Your task to perform on an android device: turn on data saver in the chrome app Image 0: 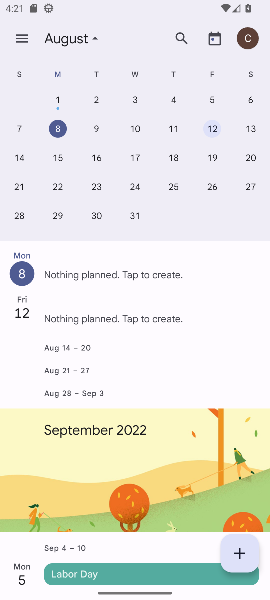
Step 0: press back button
Your task to perform on an android device: turn on data saver in the chrome app Image 1: 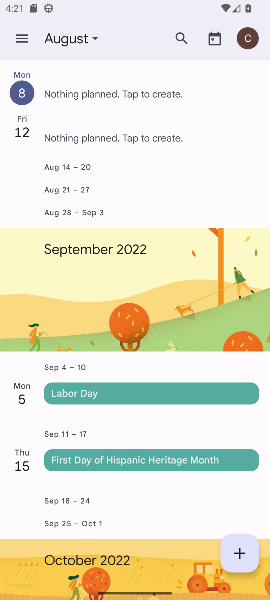
Step 1: press home button
Your task to perform on an android device: turn on data saver in the chrome app Image 2: 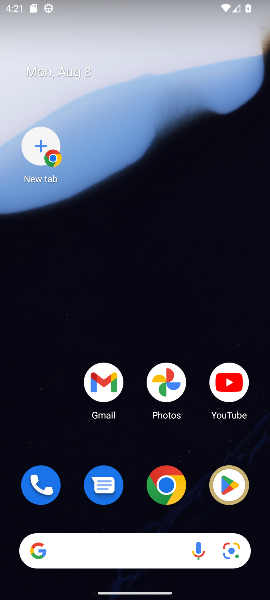
Step 2: click (101, 205)
Your task to perform on an android device: turn on data saver in the chrome app Image 3: 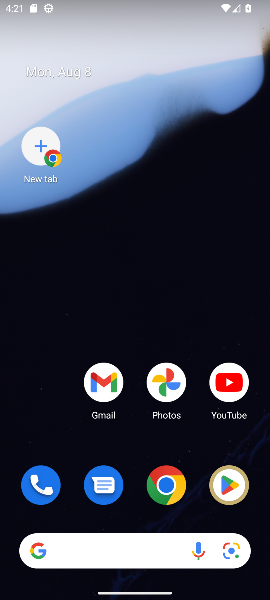
Step 3: drag from (179, 537) to (123, 150)
Your task to perform on an android device: turn on data saver in the chrome app Image 4: 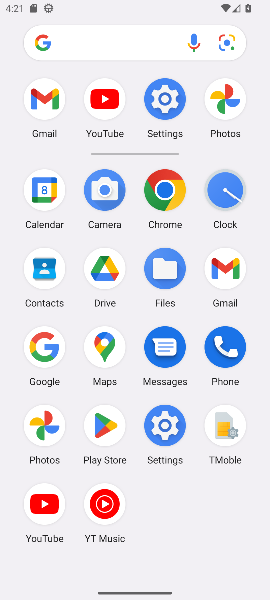
Step 4: click (161, 189)
Your task to perform on an android device: turn on data saver in the chrome app Image 5: 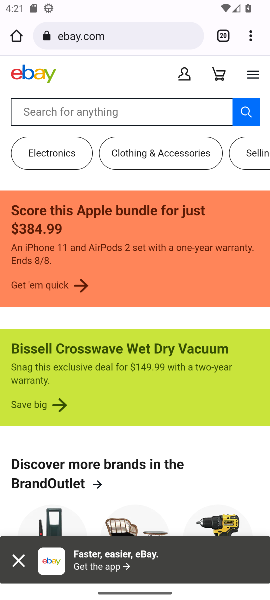
Step 5: drag from (245, 37) to (136, 467)
Your task to perform on an android device: turn on data saver in the chrome app Image 6: 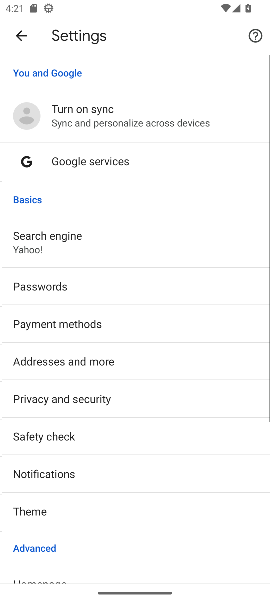
Step 6: press back button
Your task to perform on an android device: turn on data saver in the chrome app Image 7: 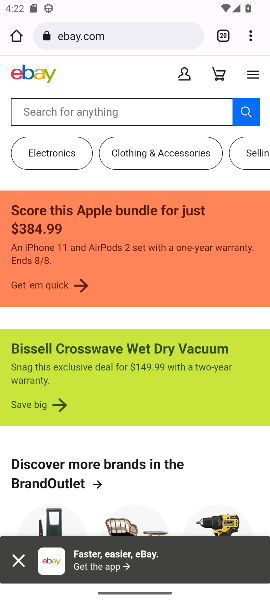
Step 7: press back button
Your task to perform on an android device: turn on data saver in the chrome app Image 8: 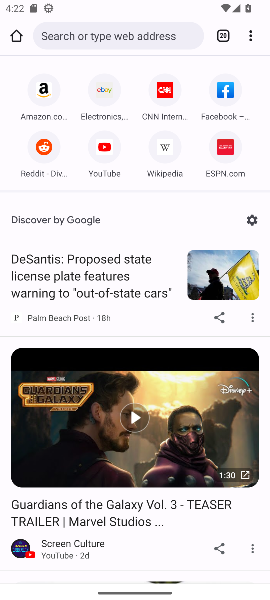
Step 8: press home button
Your task to perform on an android device: turn on data saver in the chrome app Image 9: 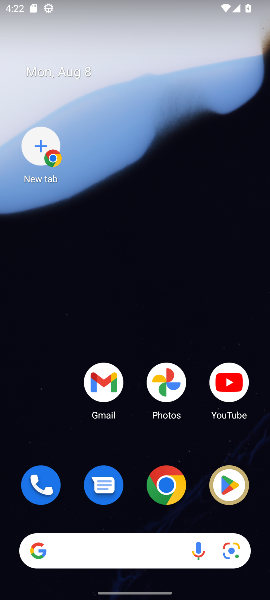
Step 9: drag from (163, 516) to (116, 10)
Your task to perform on an android device: turn on data saver in the chrome app Image 10: 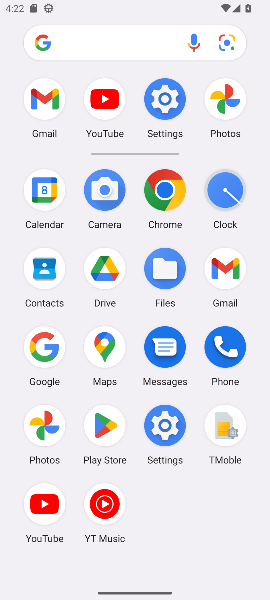
Step 10: click (166, 96)
Your task to perform on an android device: turn on data saver in the chrome app Image 11: 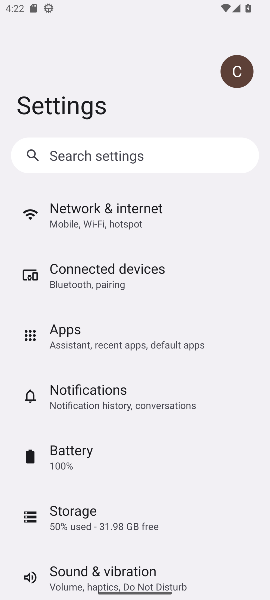
Step 11: click (89, 212)
Your task to perform on an android device: turn on data saver in the chrome app Image 12: 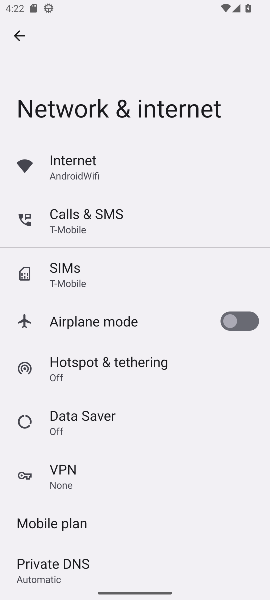
Step 12: click (71, 166)
Your task to perform on an android device: turn on data saver in the chrome app Image 13: 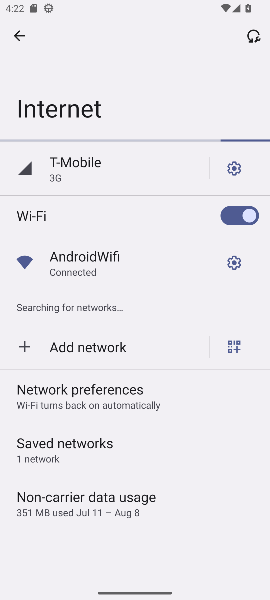
Step 13: drag from (139, 442) to (114, 225)
Your task to perform on an android device: turn on data saver in the chrome app Image 14: 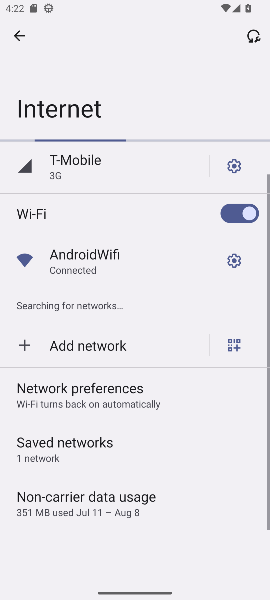
Step 14: drag from (120, 381) to (119, 266)
Your task to perform on an android device: turn on data saver in the chrome app Image 15: 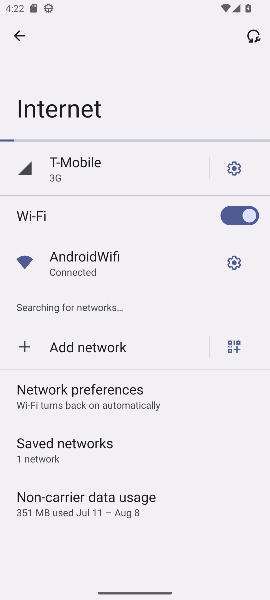
Step 15: click (79, 170)
Your task to perform on an android device: turn on data saver in the chrome app Image 16: 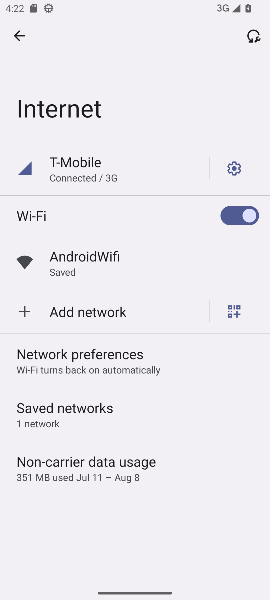
Step 16: click (30, 35)
Your task to perform on an android device: turn on data saver in the chrome app Image 17: 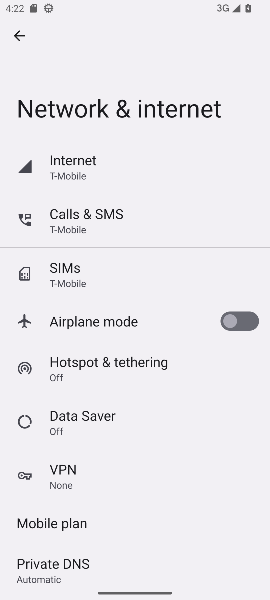
Step 17: click (65, 420)
Your task to perform on an android device: turn on data saver in the chrome app Image 18: 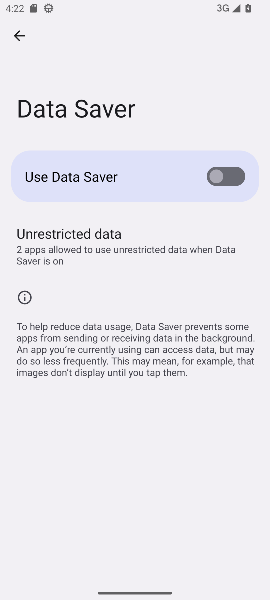
Step 18: click (215, 168)
Your task to perform on an android device: turn on data saver in the chrome app Image 19: 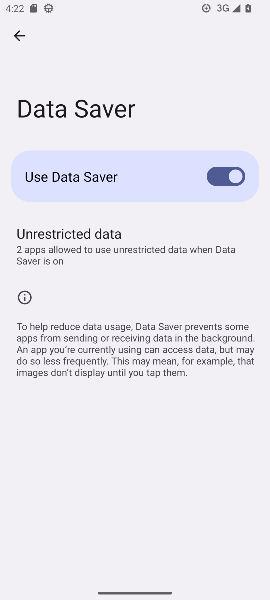
Step 19: task complete